Your task to perform on an android device: check android version Image 0: 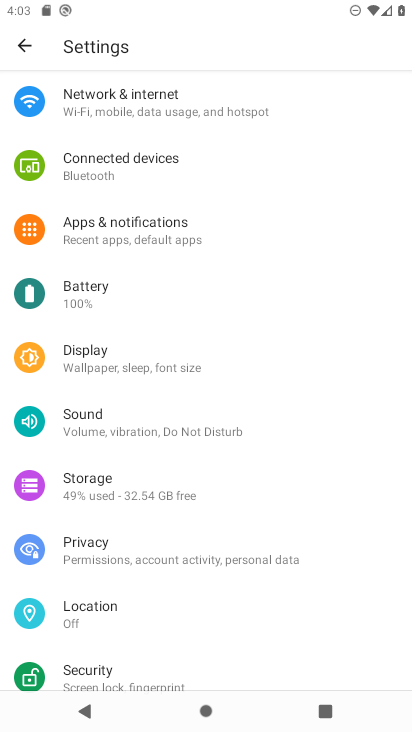
Step 0: press home button
Your task to perform on an android device: check android version Image 1: 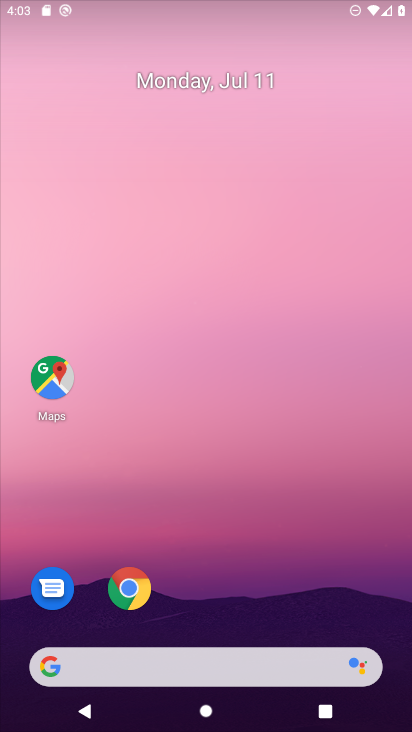
Step 1: drag from (292, 531) to (301, 27)
Your task to perform on an android device: check android version Image 2: 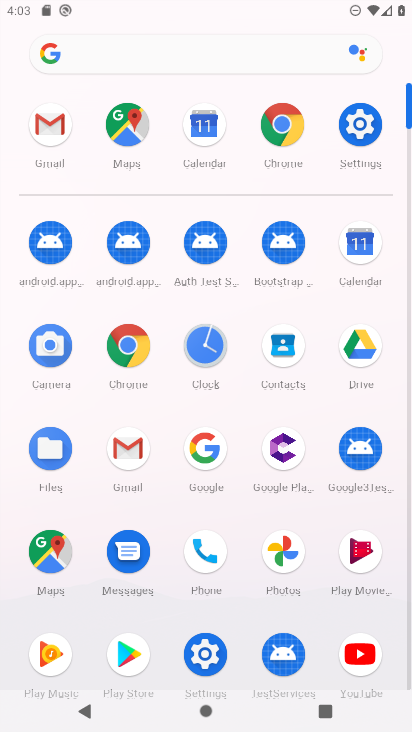
Step 2: click (347, 122)
Your task to perform on an android device: check android version Image 3: 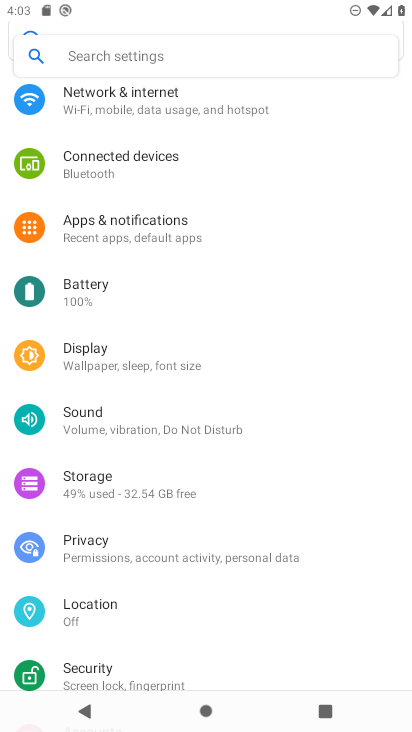
Step 3: drag from (190, 656) to (223, 243)
Your task to perform on an android device: check android version Image 4: 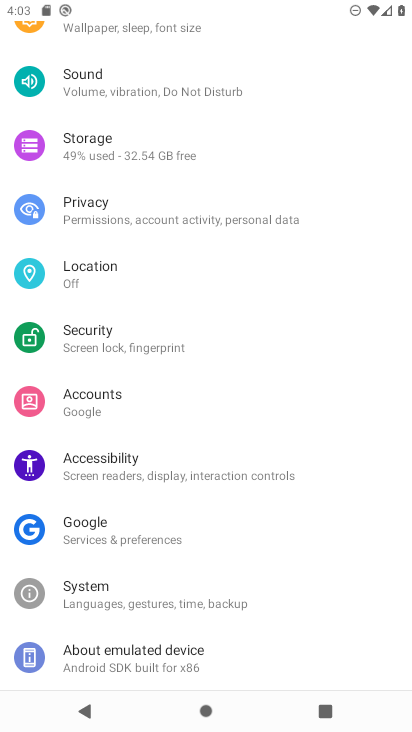
Step 4: click (129, 657)
Your task to perform on an android device: check android version Image 5: 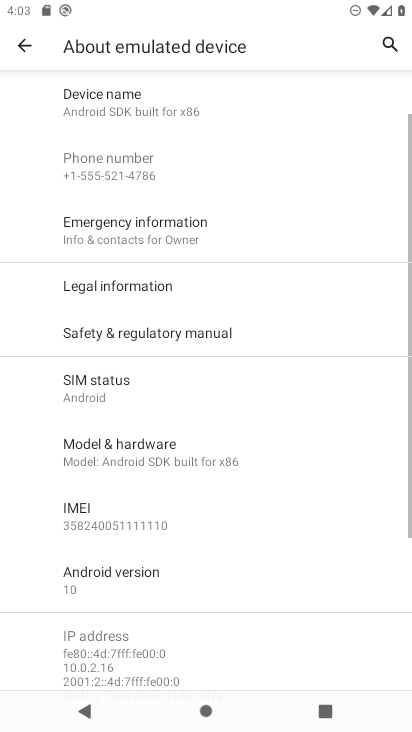
Step 5: click (79, 581)
Your task to perform on an android device: check android version Image 6: 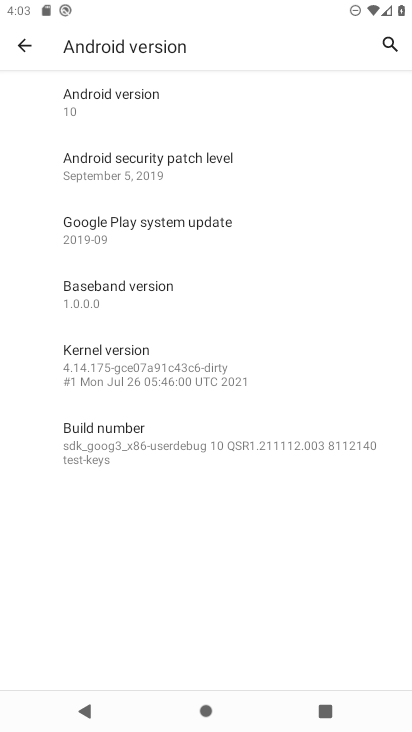
Step 6: click (135, 98)
Your task to perform on an android device: check android version Image 7: 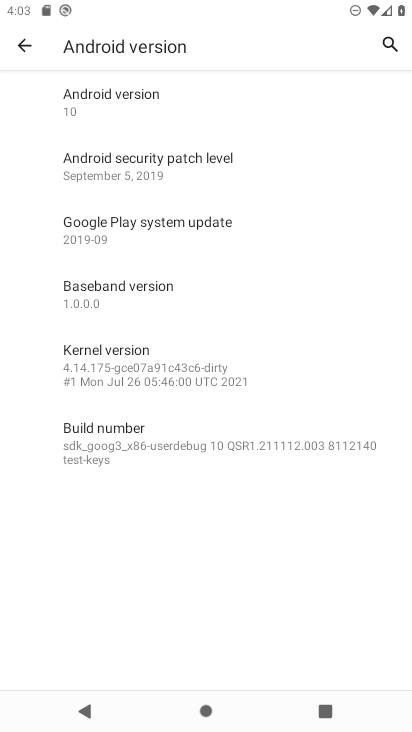
Step 7: task complete